Your task to perform on an android device: Go to location settings Image 0: 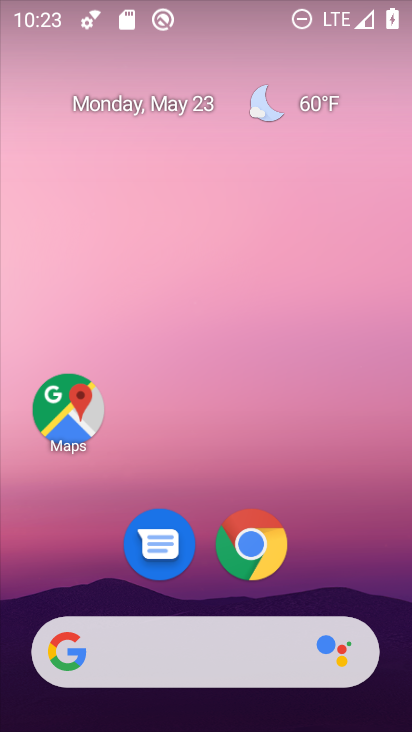
Step 0: drag from (323, 567) to (103, 304)
Your task to perform on an android device: Go to location settings Image 1: 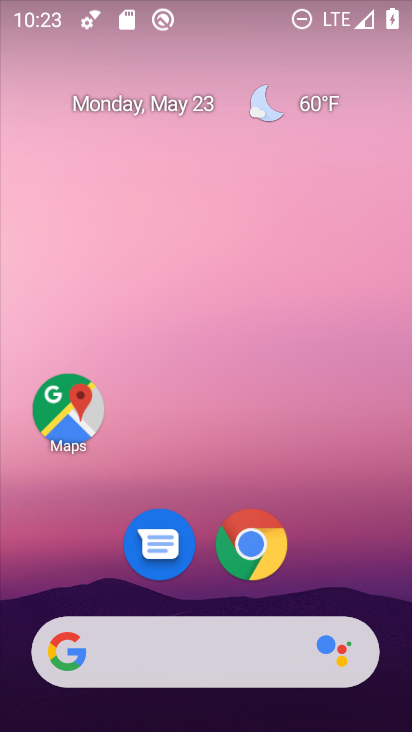
Step 1: drag from (346, 593) to (382, 122)
Your task to perform on an android device: Go to location settings Image 2: 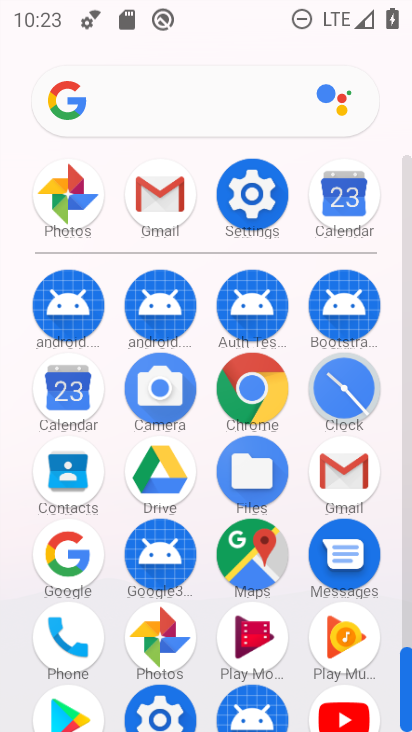
Step 2: click (252, 195)
Your task to perform on an android device: Go to location settings Image 3: 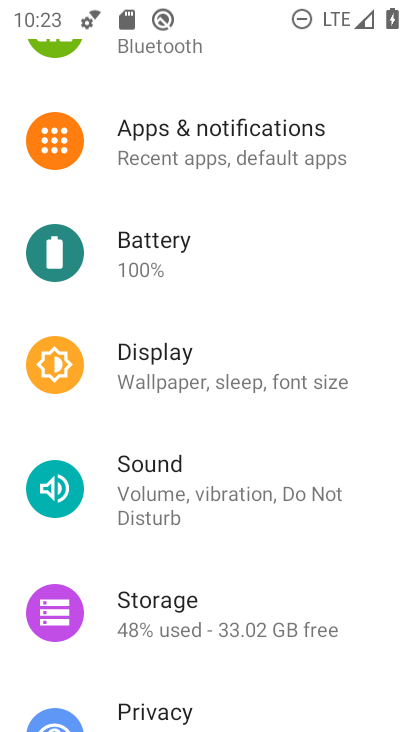
Step 3: drag from (263, 637) to (257, 261)
Your task to perform on an android device: Go to location settings Image 4: 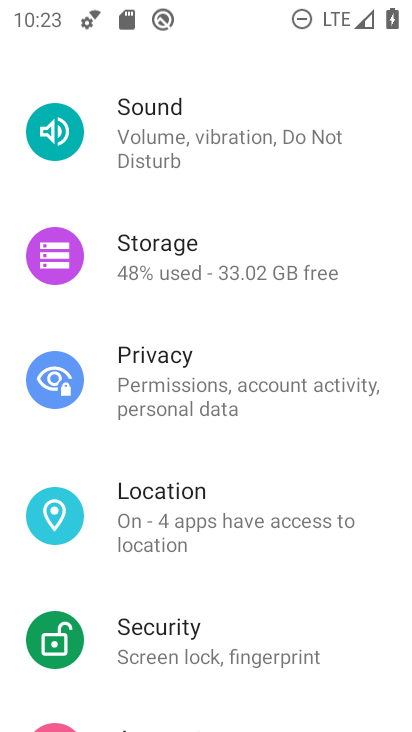
Step 4: click (153, 516)
Your task to perform on an android device: Go to location settings Image 5: 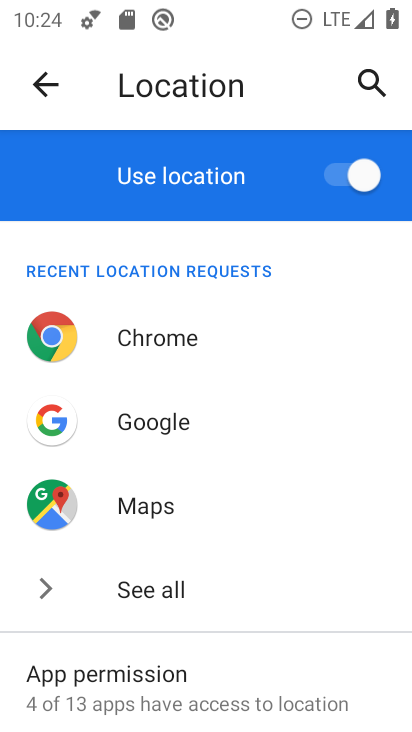
Step 5: task complete